Your task to perform on an android device: Go to Google maps Image 0: 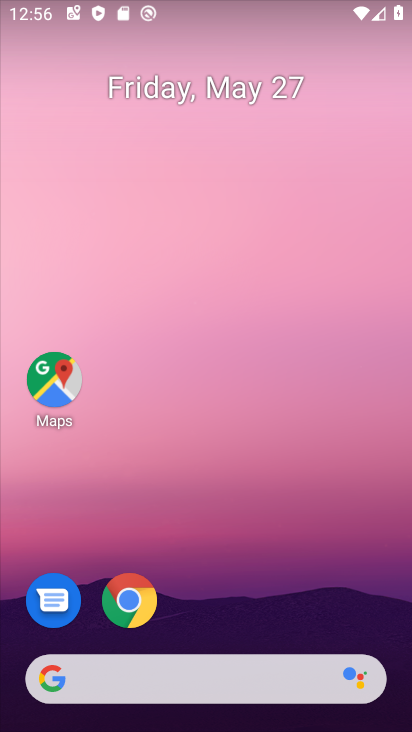
Step 0: click (38, 374)
Your task to perform on an android device: Go to Google maps Image 1: 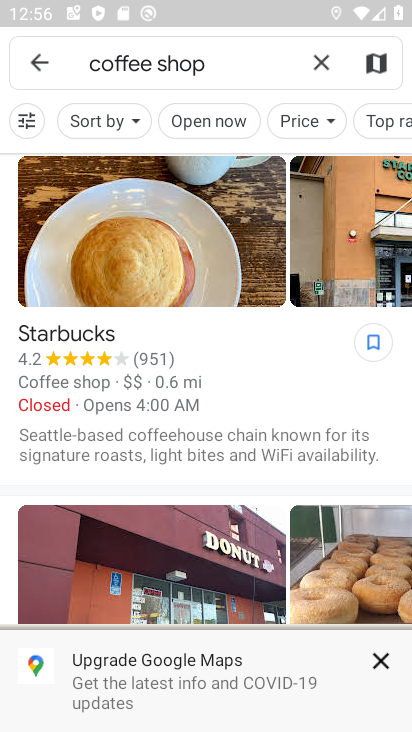
Step 1: task complete